Your task to perform on an android device: Add "logitech g910" to the cart on target Image 0: 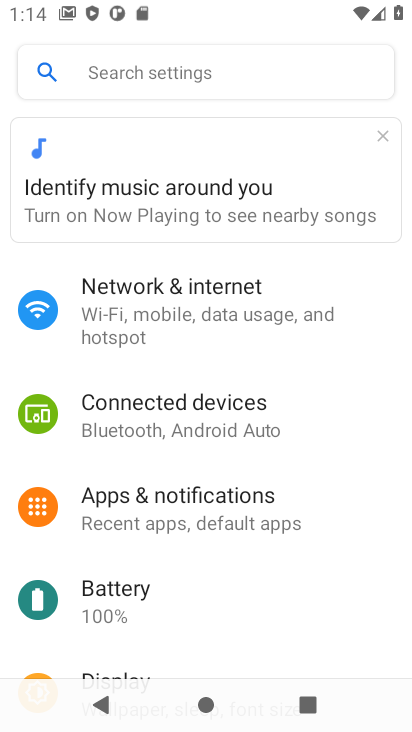
Step 0: press home button
Your task to perform on an android device: Add "logitech g910" to the cart on target Image 1: 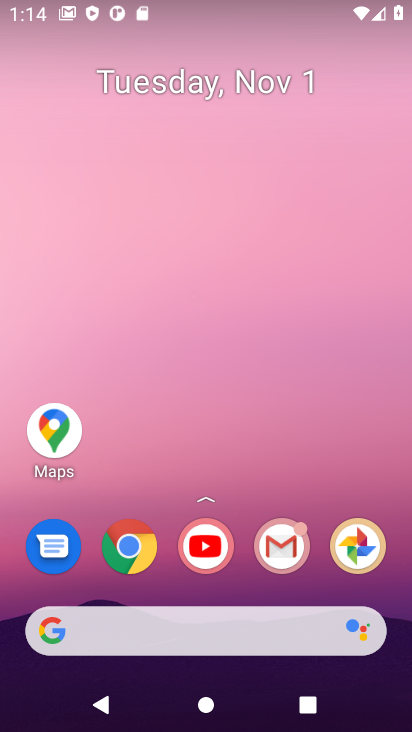
Step 1: click (128, 557)
Your task to perform on an android device: Add "logitech g910" to the cart on target Image 2: 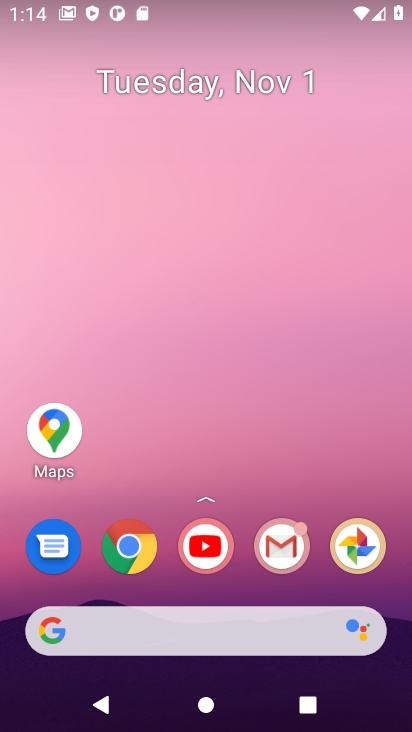
Step 2: click (128, 557)
Your task to perform on an android device: Add "logitech g910" to the cart on target Image 3: 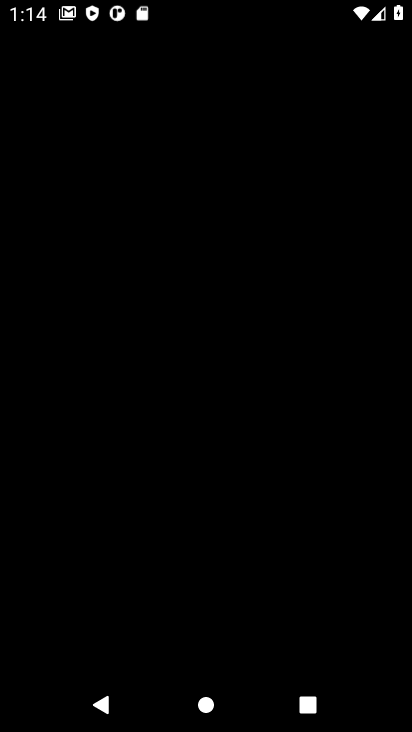
Step 3: press home button
Your task to perform on an android device: Add "logitech g910" to the cart on target Image 4: 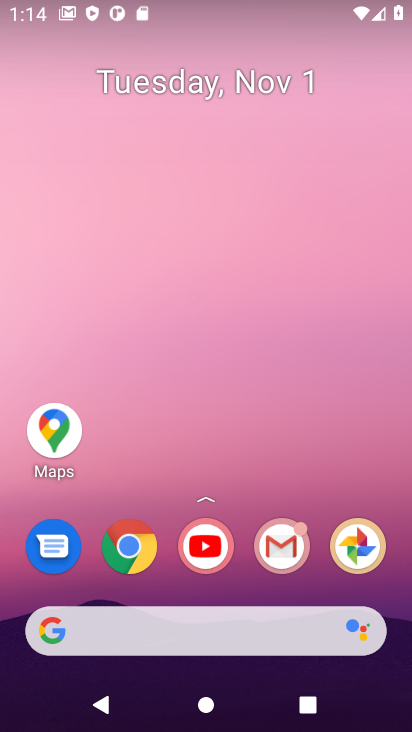
Step 4: click (129, 546)
Your task to perform on an android device: Add "logitech g910" to the cart on target Image 5: 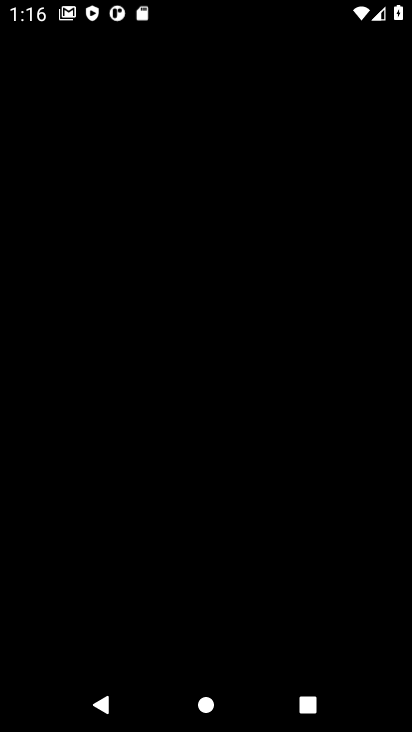
Step 5: task complete